Your task to perform on an android device: What is the news today? Image 0: 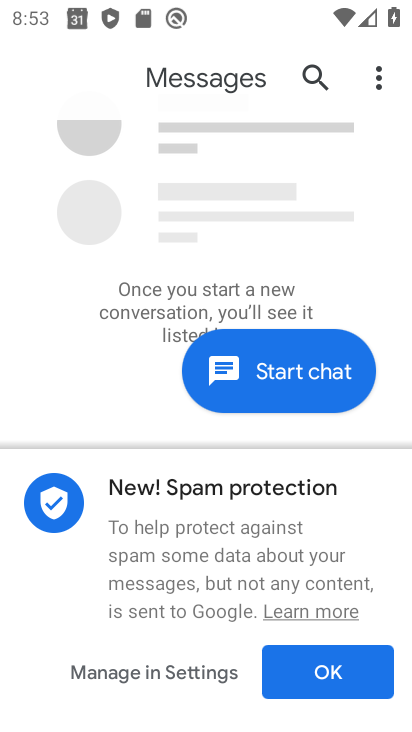
Step 0: press back button
Your task to perform on an android device: What is the news today? Image 1: 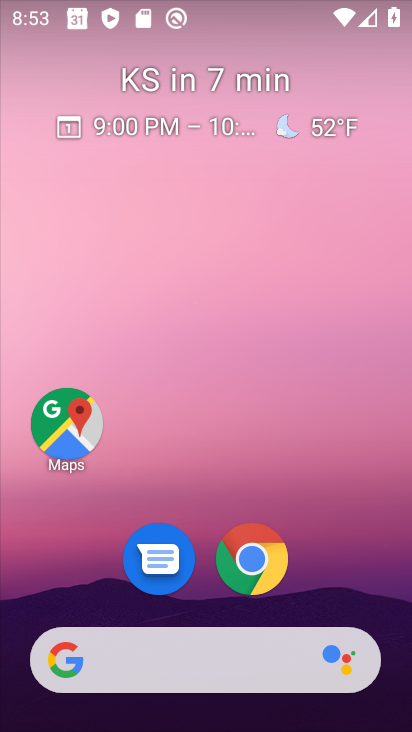
Step 1: drag from (331, 577) to (246, 33)
Your task to perform on an android device: What is the news today? Image 2: 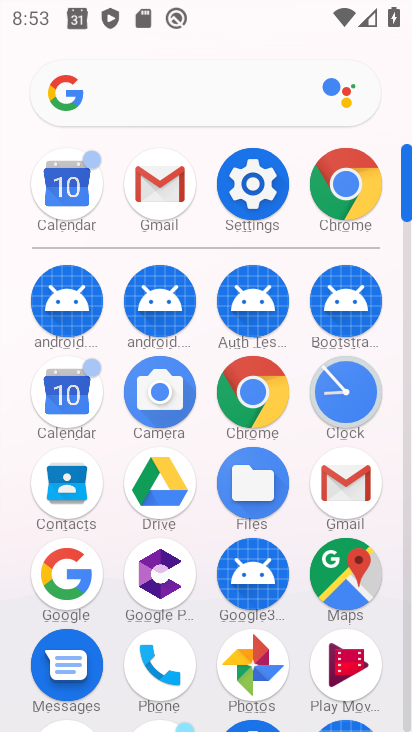
Step 2: click (254, 387)
Your task to perform on an android device: What is the news today? Image 3: 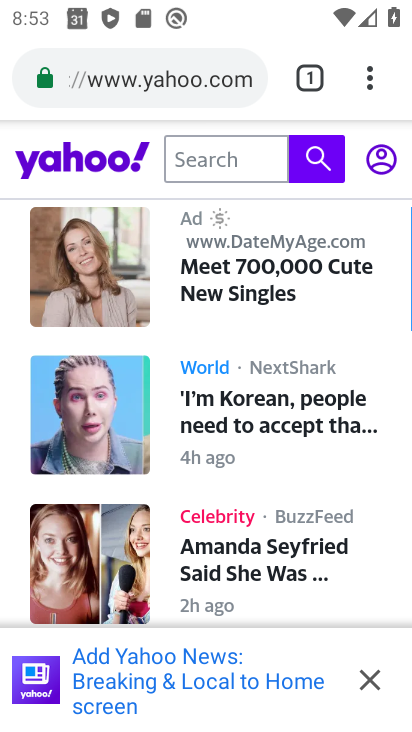
Step 3: click (193, 83)
Your task to perform on an android device: What is the news today? Image 4: 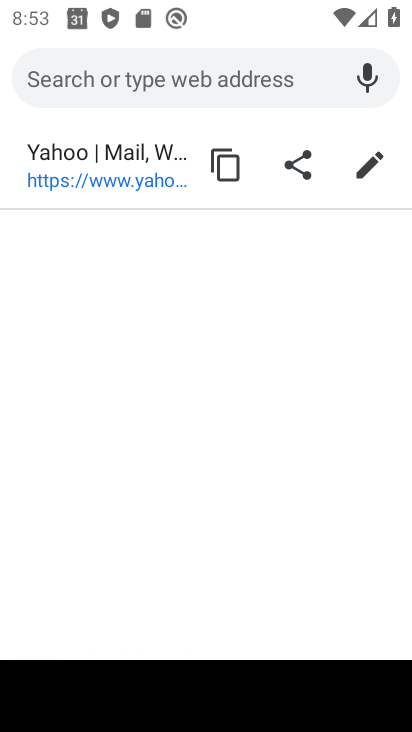
Step 4: type "What is the news today?"
Your task to perform on an android device: What is the news today? Image 5: 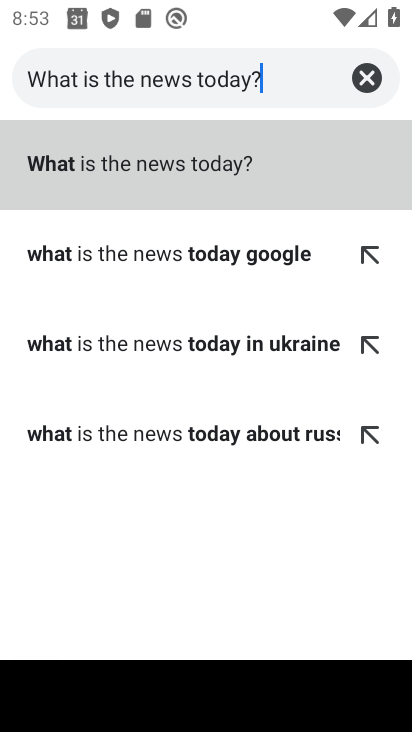
Step 5: type ""
Your task to perform on an android device: What is the news today? Image 6: 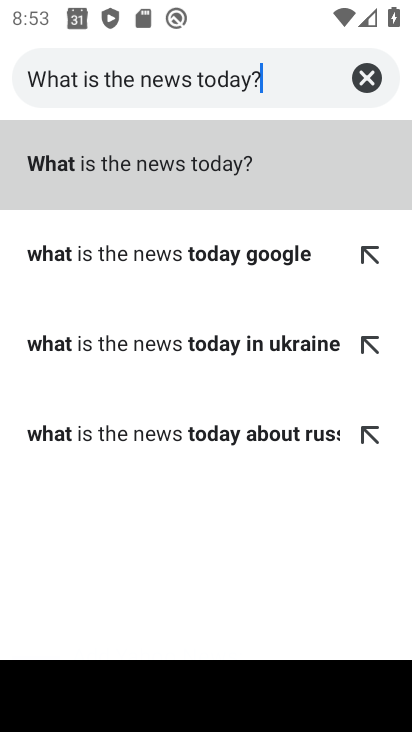
Step 6: click (255, 193)
Your task to perform on an android device: What is the news today? Image 7: 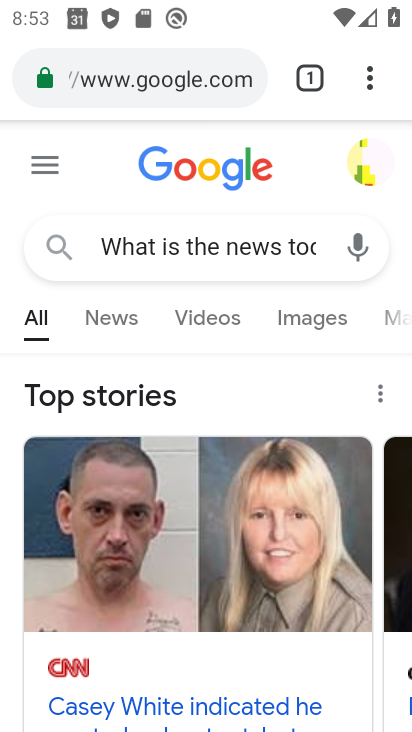
Step 7: click (114, 319)
Your task to perform on an android device: What is the news today? Image 8: 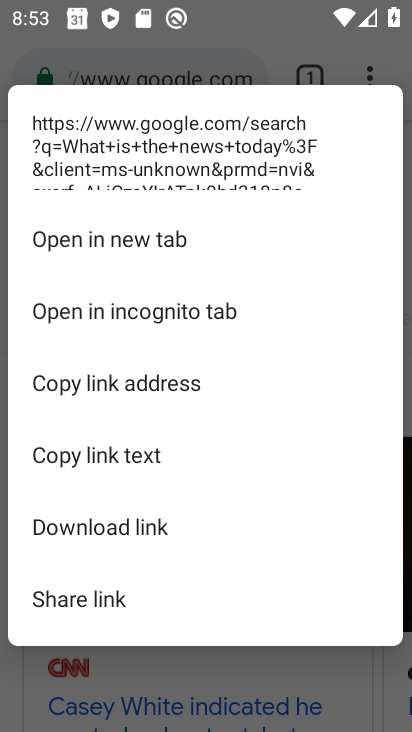
Step 8: click (48, 696)
Your task to perform on an android device: What is the news today? Image 9: 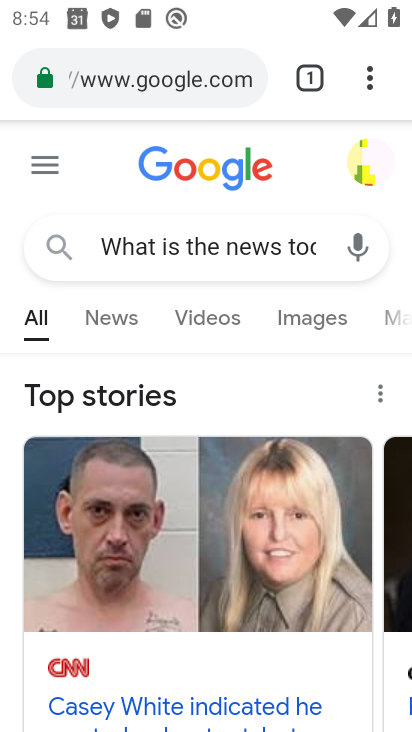
Step 9: click (118, 316)
Your task to perform on an android device: What is the news today? Image 10: 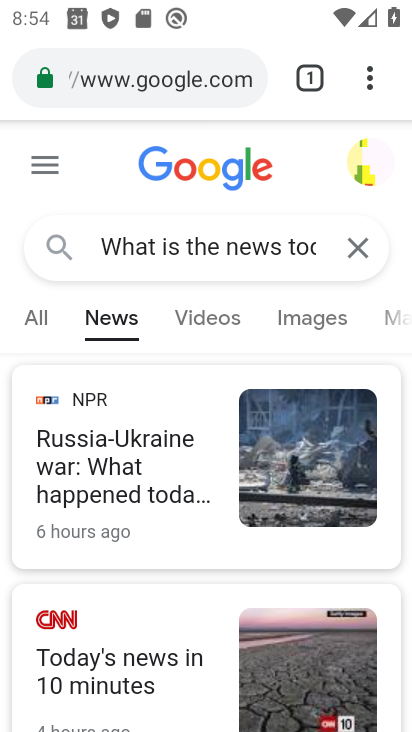
Step 10: task complete